Your task to perform on an android device: turn off location history Image 0: 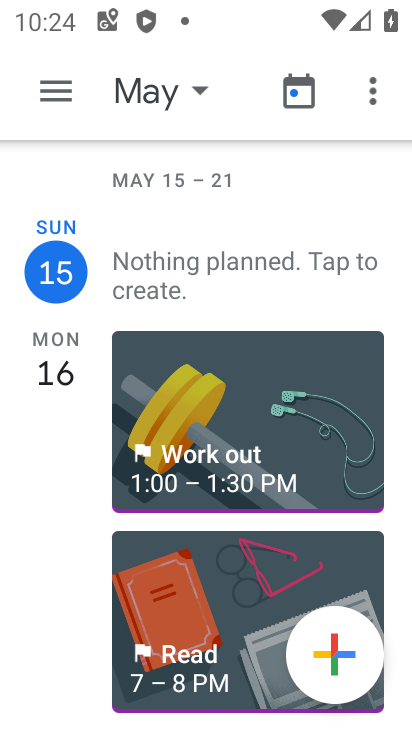
Step 0: press home button
Your task to perform on an android device: turn off location history Image 1: 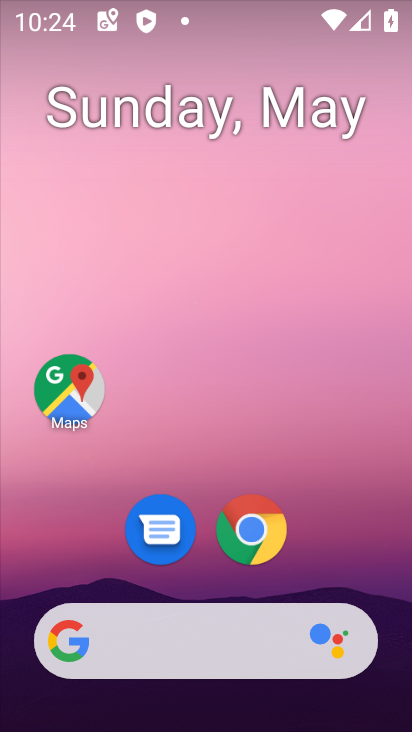
Step 1: drag from (219, 615) to (87, 6)
Your task to perform on an android device: turn off location history Image 2: 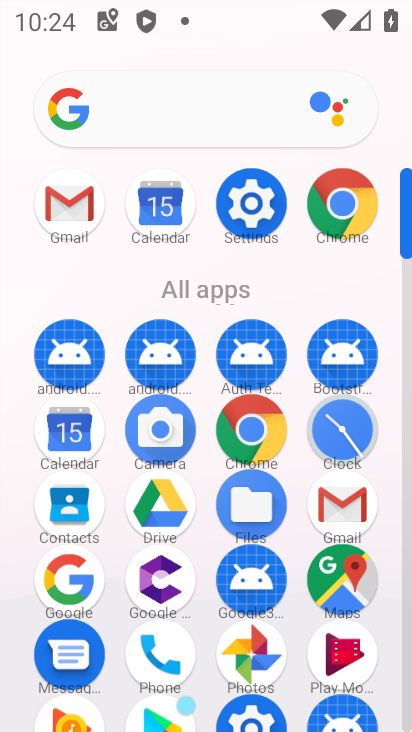
Step 2: click (234, 209)
Your task to perform on an android device: turn off location history Image 3: 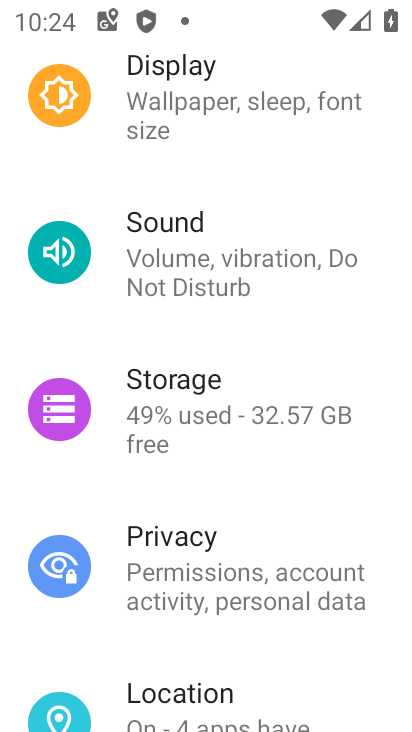
Step 3: click (155, 688)
Your task to perform on an android device: turn off location history Image 4: 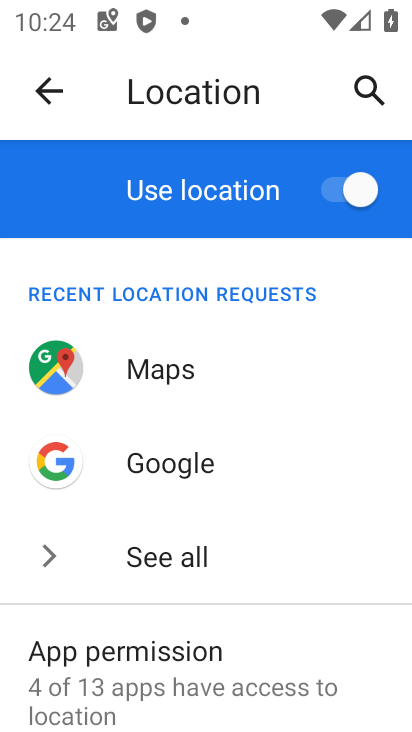
Step 4: drag from (172, 621) to (117, 168)
Your task to perform on an android device: turn off location history Image 5: 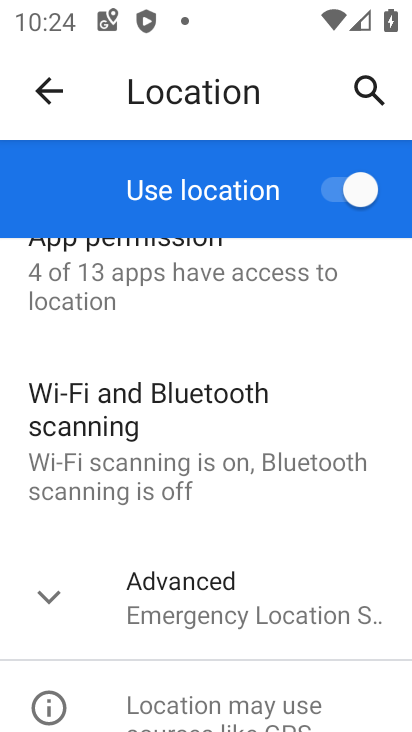
Step 5: click (172, 583)
Your task to perform on an android device: turn off location history Image 6: 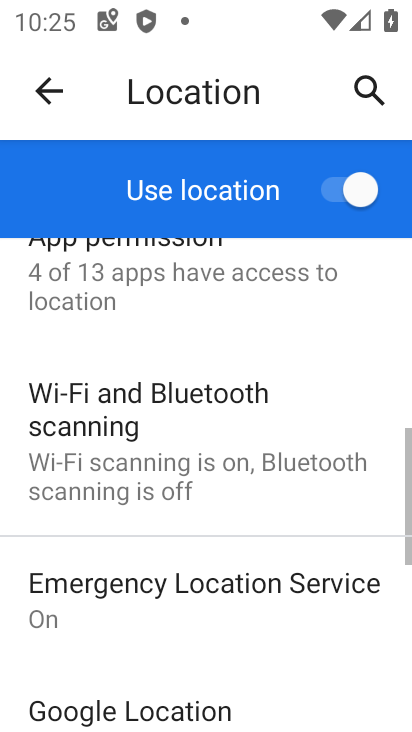
Step 6: drag from (158, 619) to (117, 144)
Your task to perform on an android device: turn off location history Image 7: 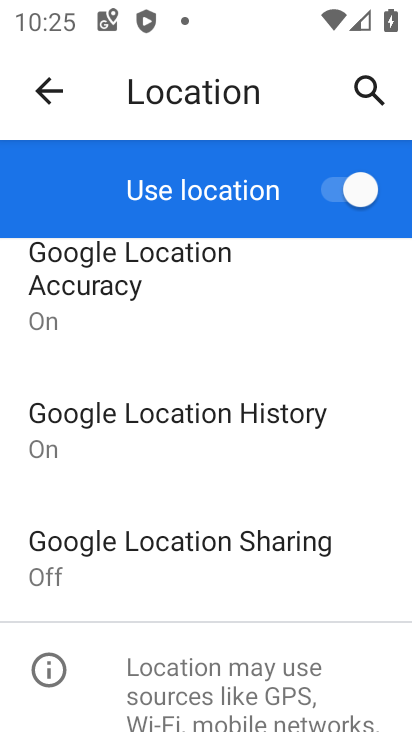
Step 7: click (127, 414)
Your task to perform on an android device: turn off location history Image 8: 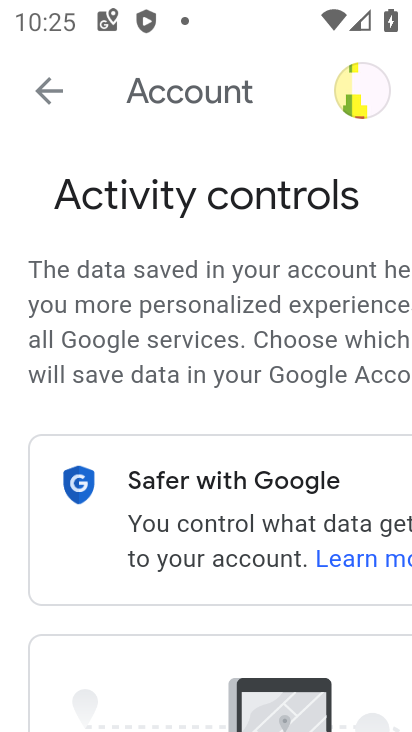
Step 8: task complete